Your task to perform on an android device: set default search engine in the chrome app Image 0: 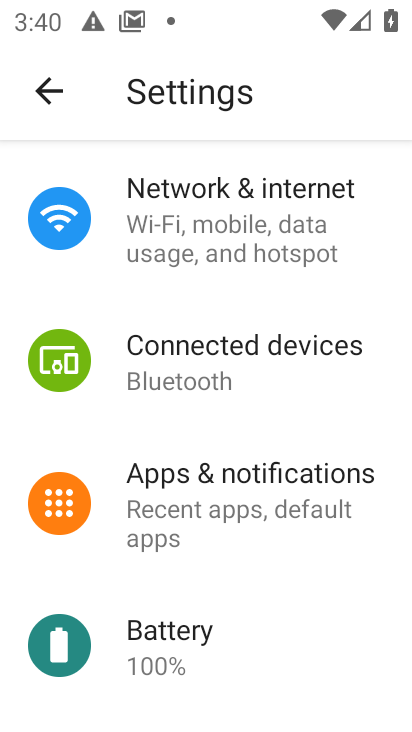
Step 0: press home button
Your task to perform on an android device: set default search engine in the chrome app Image 1: 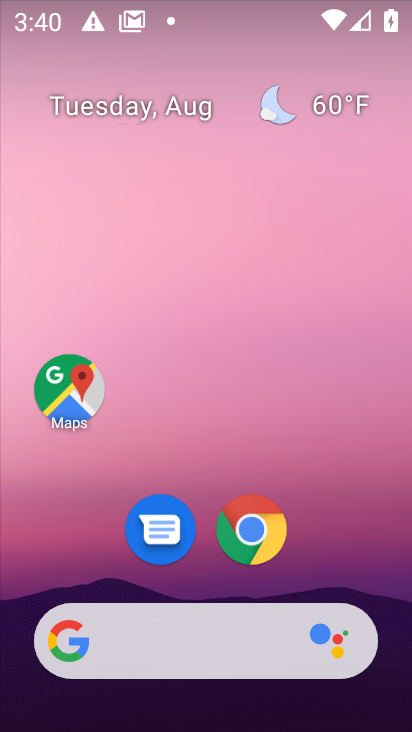
Step 1: click (266, 522)
Your task to perform on an android device: set default search engine in the chrome app Image 2: 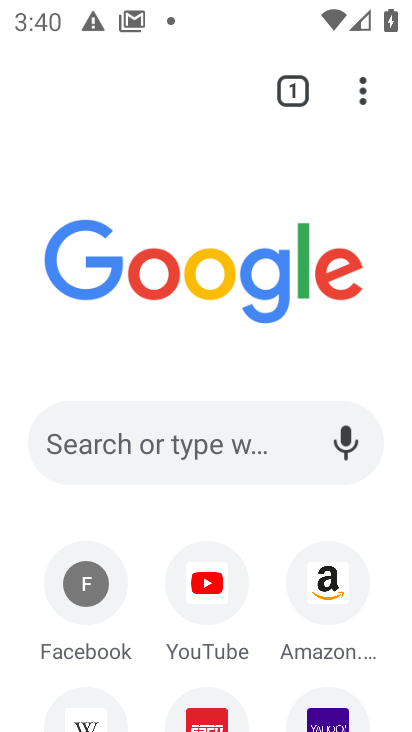
Step 2: click (357, 89)
Your task to perform on an android device: set default search engine in the chrome app Image 3: 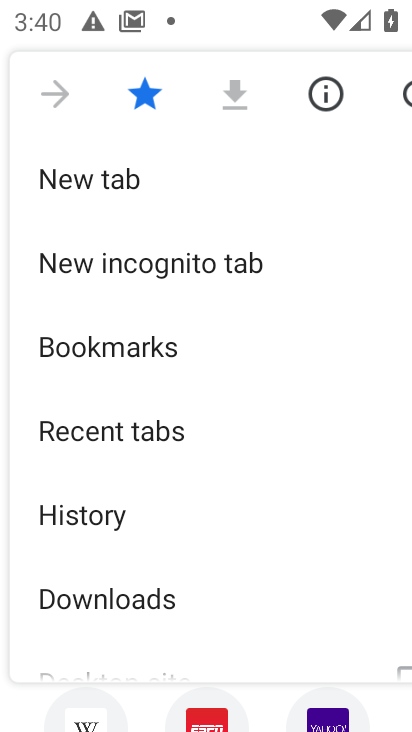
Step 3: drag from (300, 610) to (287, 327)
Your task to perform on an android device: set default search engine in the chrome app Image 4: 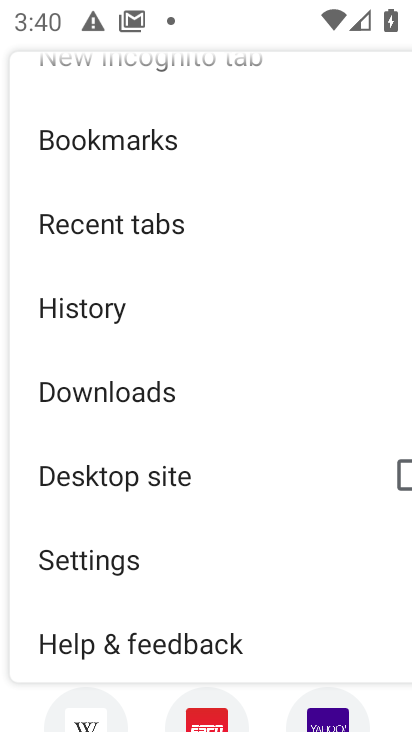
Step 4: click (189, 557)
Your task to perform on an android device: set default search engine in the chrome app Image 5: 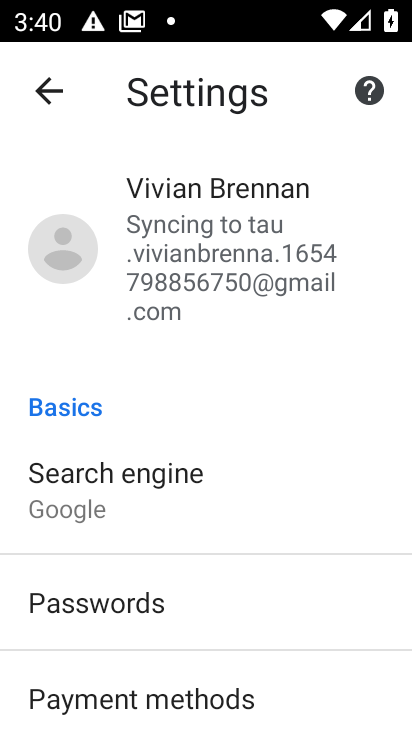
Step 5: drag from (169, 562) to (139, 326)
Your task to perform on an android device: set default search engine in the chrome app Image 6: 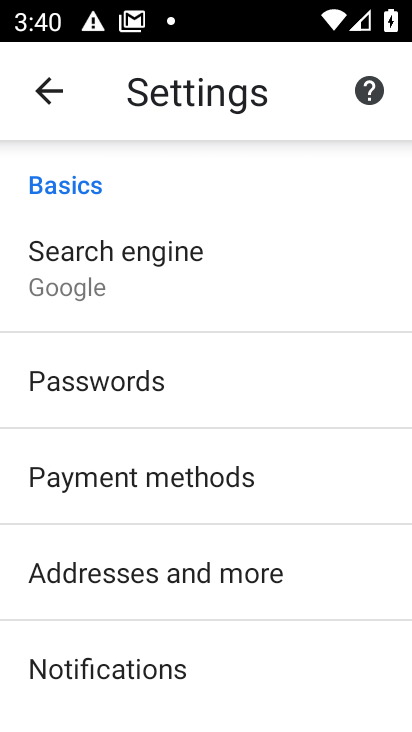
Step 6: click (132, 287)
Your task to perform on an android device: set default search engine in the chrome app Image 7: 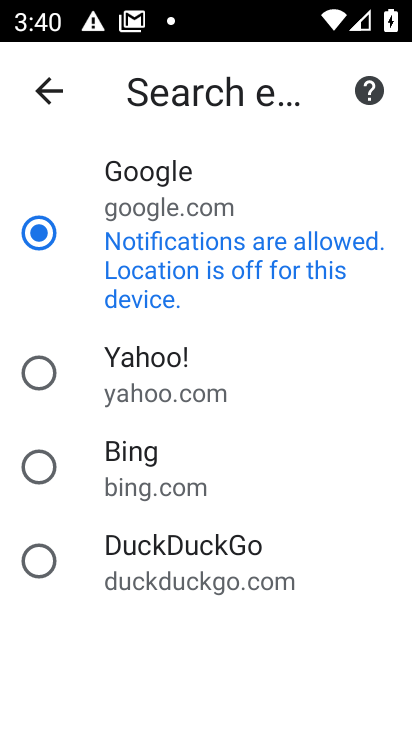
Step 7: click (195, 396)
Your task to perform on an android device: set default search engine in the chrome app Image 8: 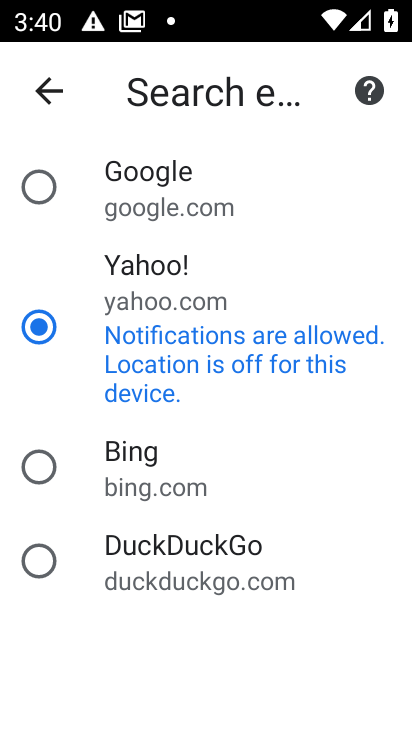
Step 8: task complete